Your task to perform on an android device: Search for "usb-b" on bestbuy, select the first entry, and add it to the cart. Image 0: 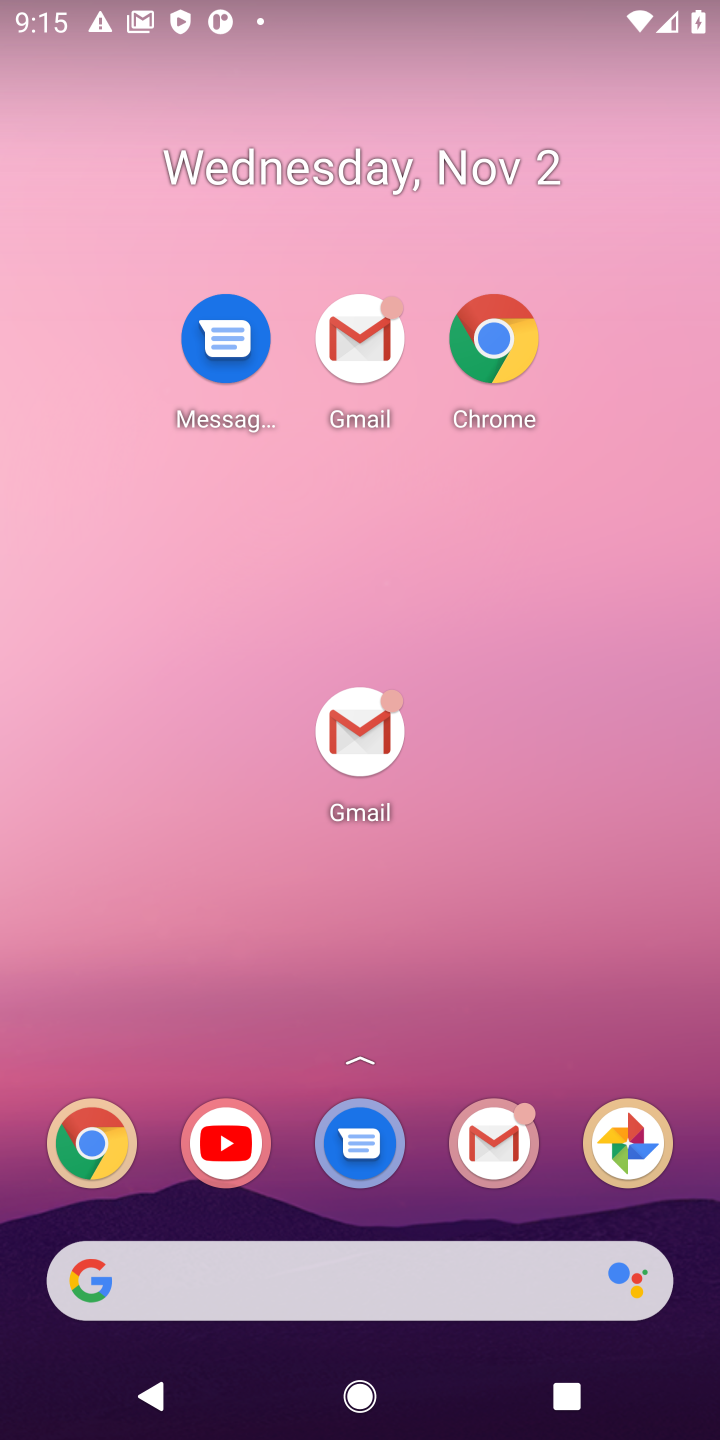
Step 0: click (423, 210)
Your task to perform on an android device: Search for "usb-b" on bestbuy, select the first entry, and add it to the cart. Image 1: 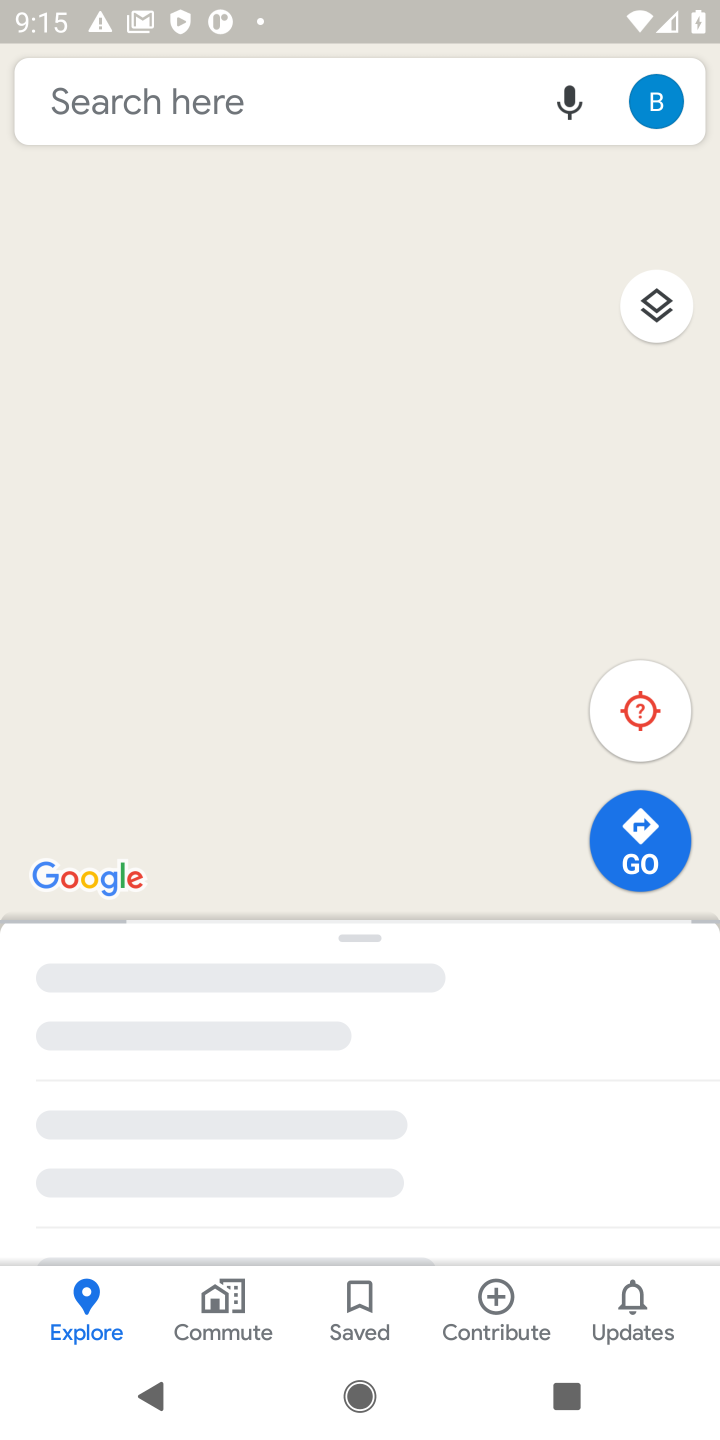
Step 1: press home button
Your task to perform on an android device: Search for "usb-b" on bestbuy, select the first entry, and add it to the cart. Image 2: 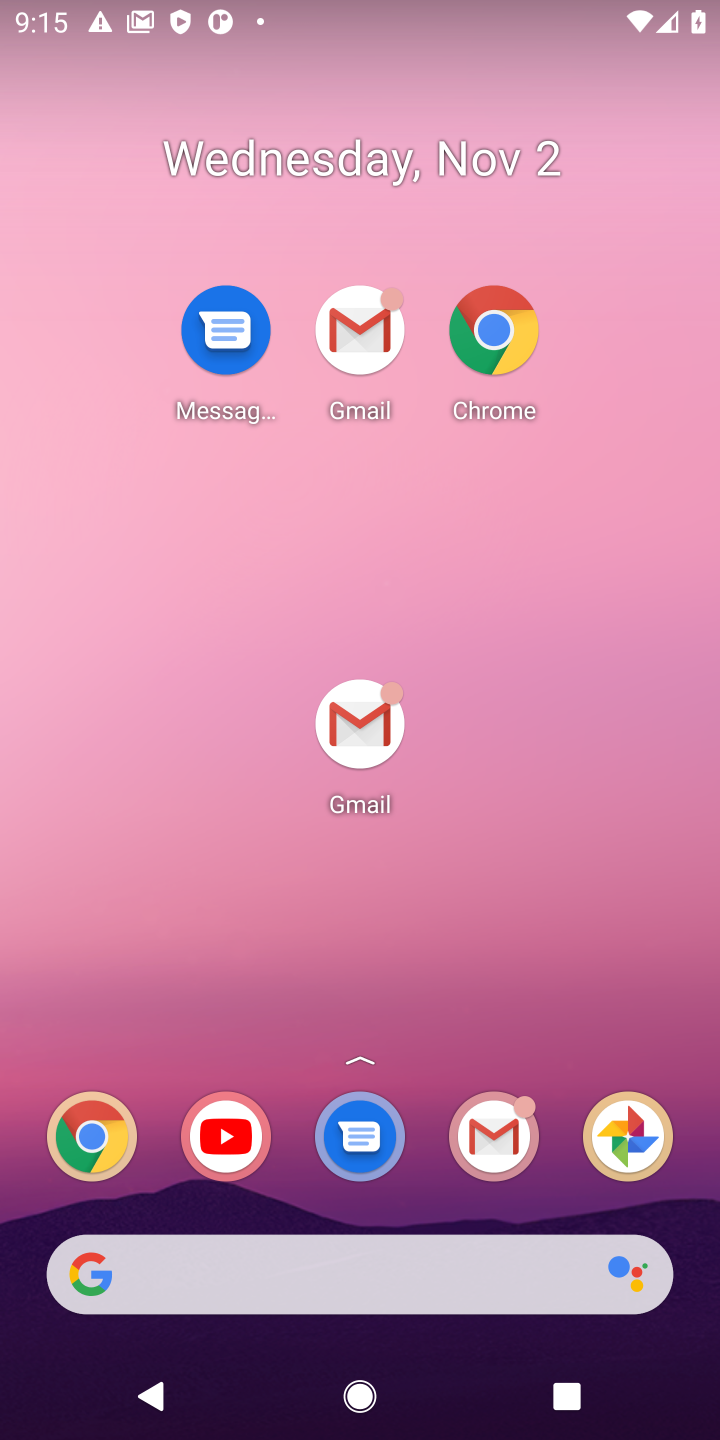
Step 2: press home button
Your task to perform on an android device: Search for "usb-b" on bestbuy, select the first entry, and add it to the cart. Image 3: 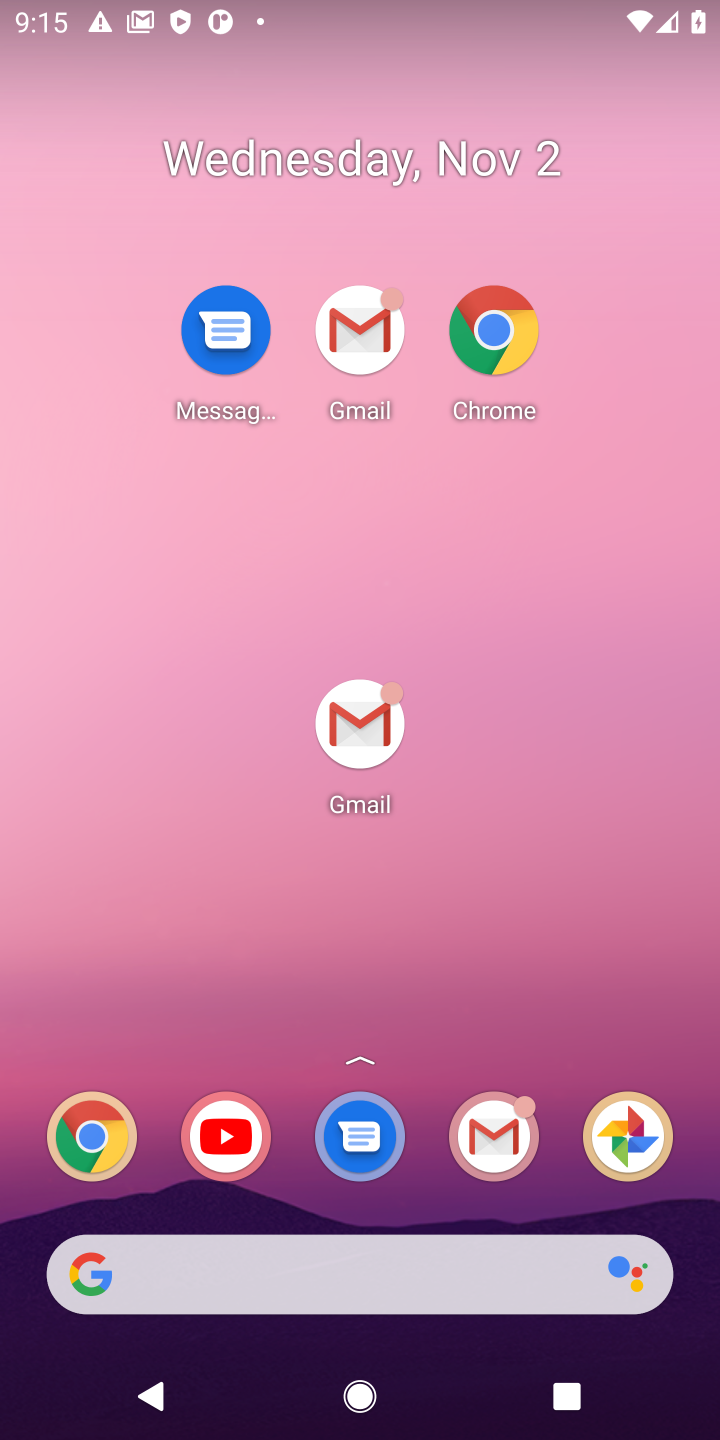
Step 3: drag from (307, 1034) to (284, 230)
Your task to perform on an android device: Search for "usb-b" on bestbuy, select the first entry, and add it to the cart. Image 4: 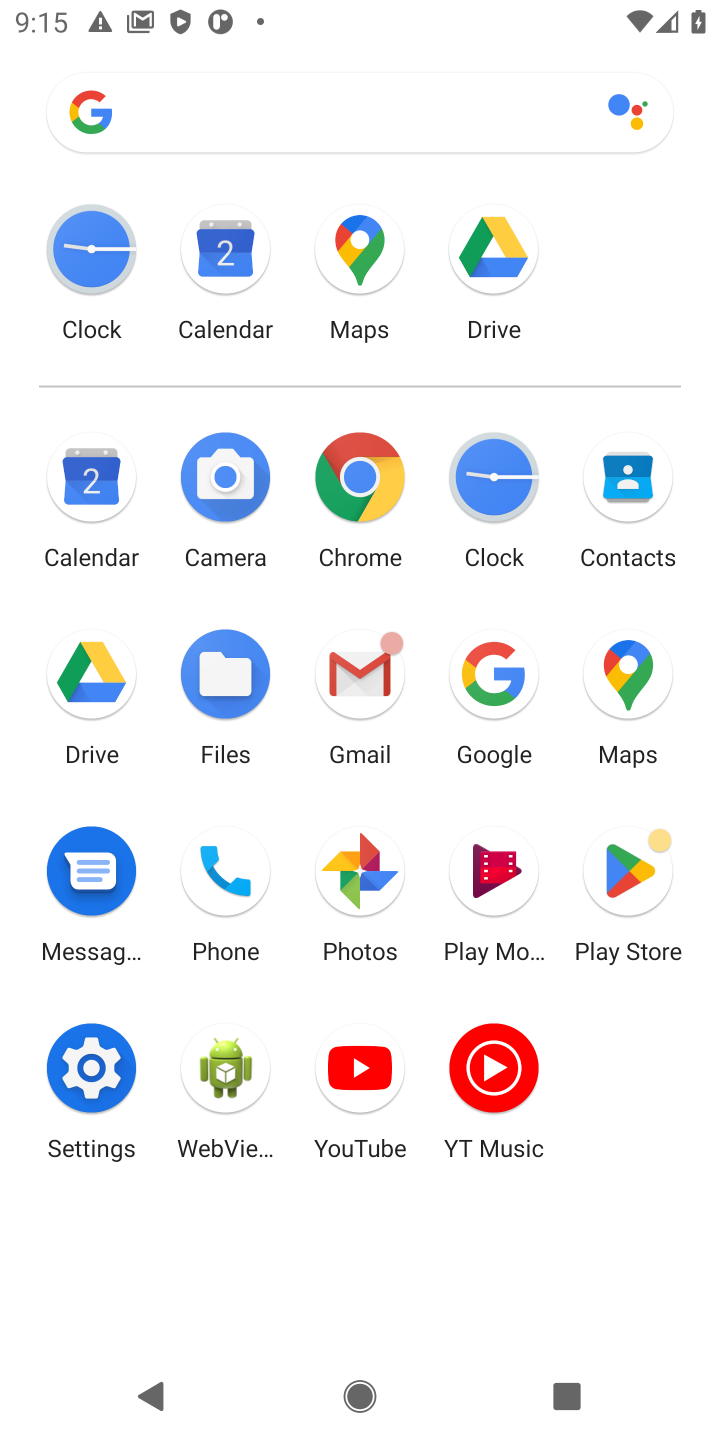
Step 4: click (497, 680)
Your task to perform on an android device: Search for "usb-b" on bestbuy, select the first entry, and add it to the cart. Image 5: 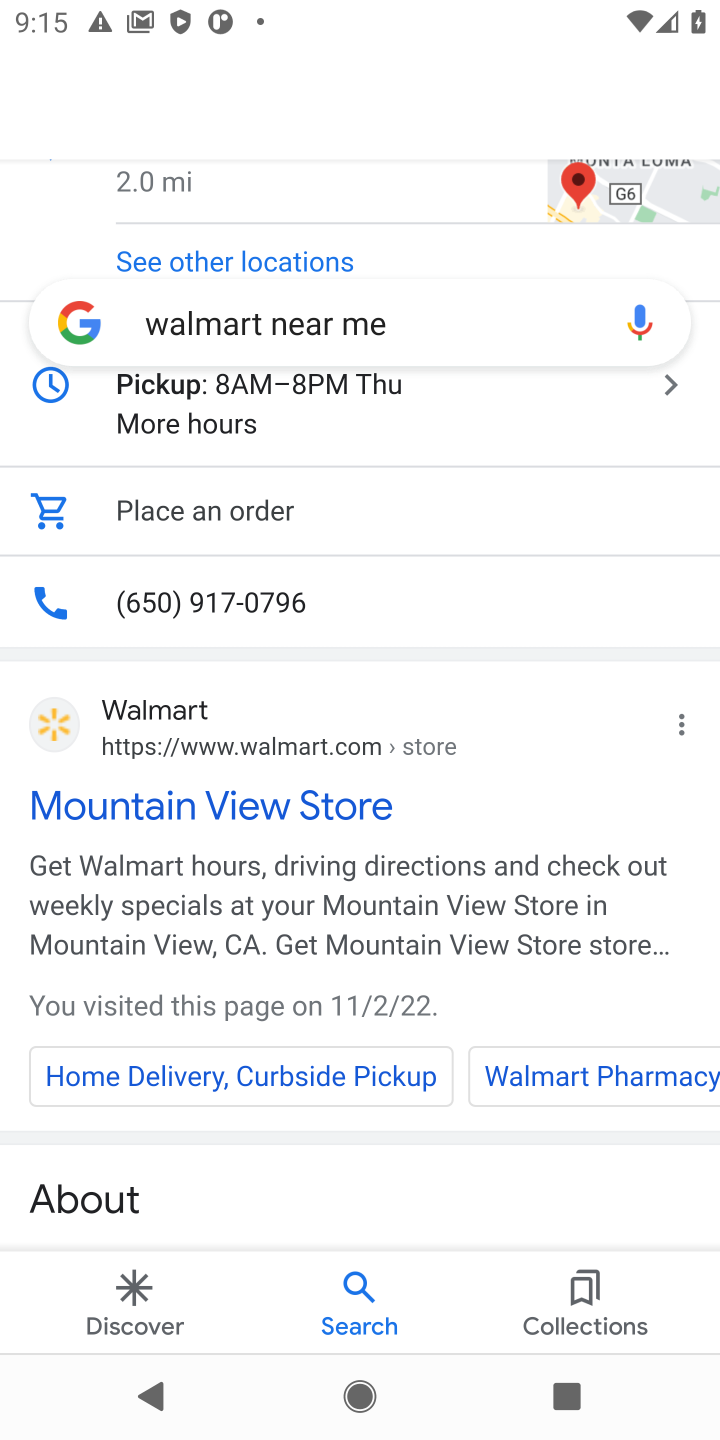
Step 5: click (388, 327)
Your task to perform on an android device: Search for "usb-b" on bestbuy, select the first entry, and add it to the cart. Image 6: 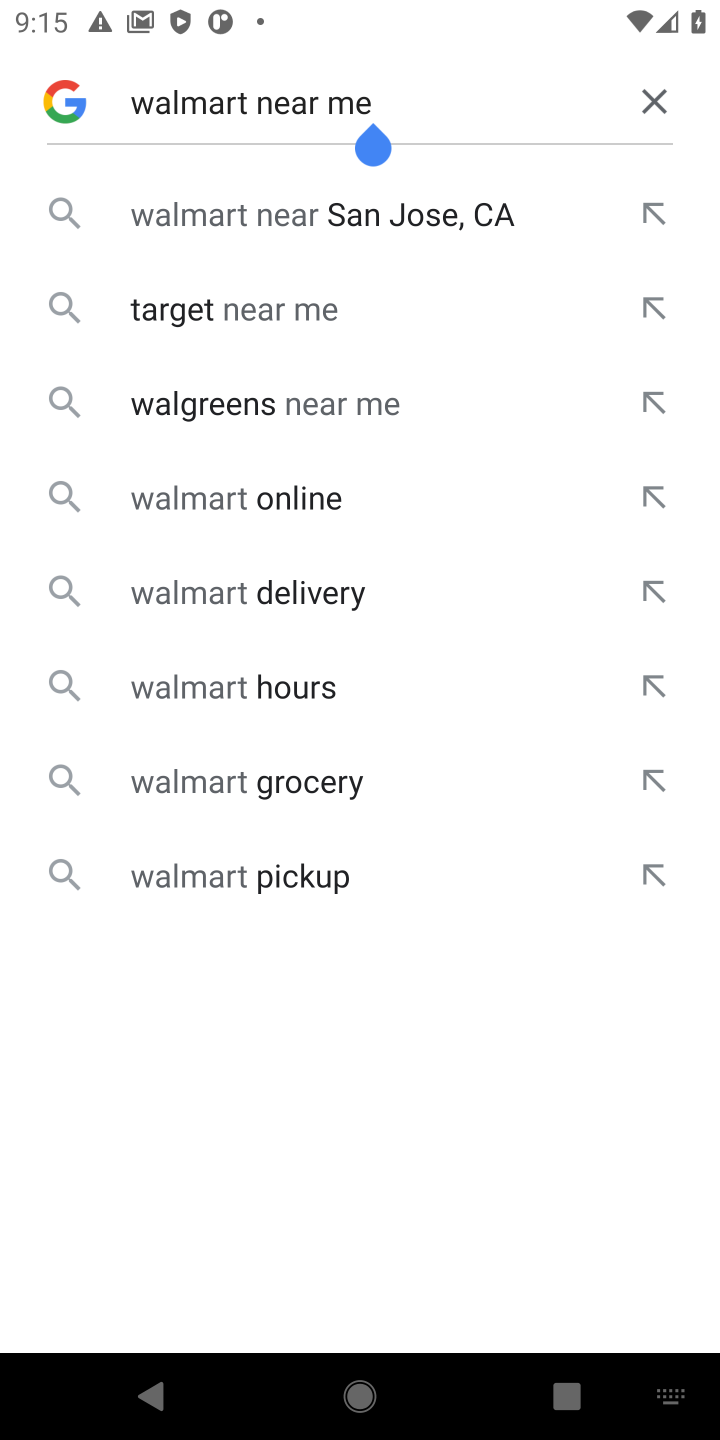
Step 6: click (661, 104)
Your task to perform on an android device: Search for "usb-b" on bestbuy, select the first entry, and add it to the cart. Image 7: 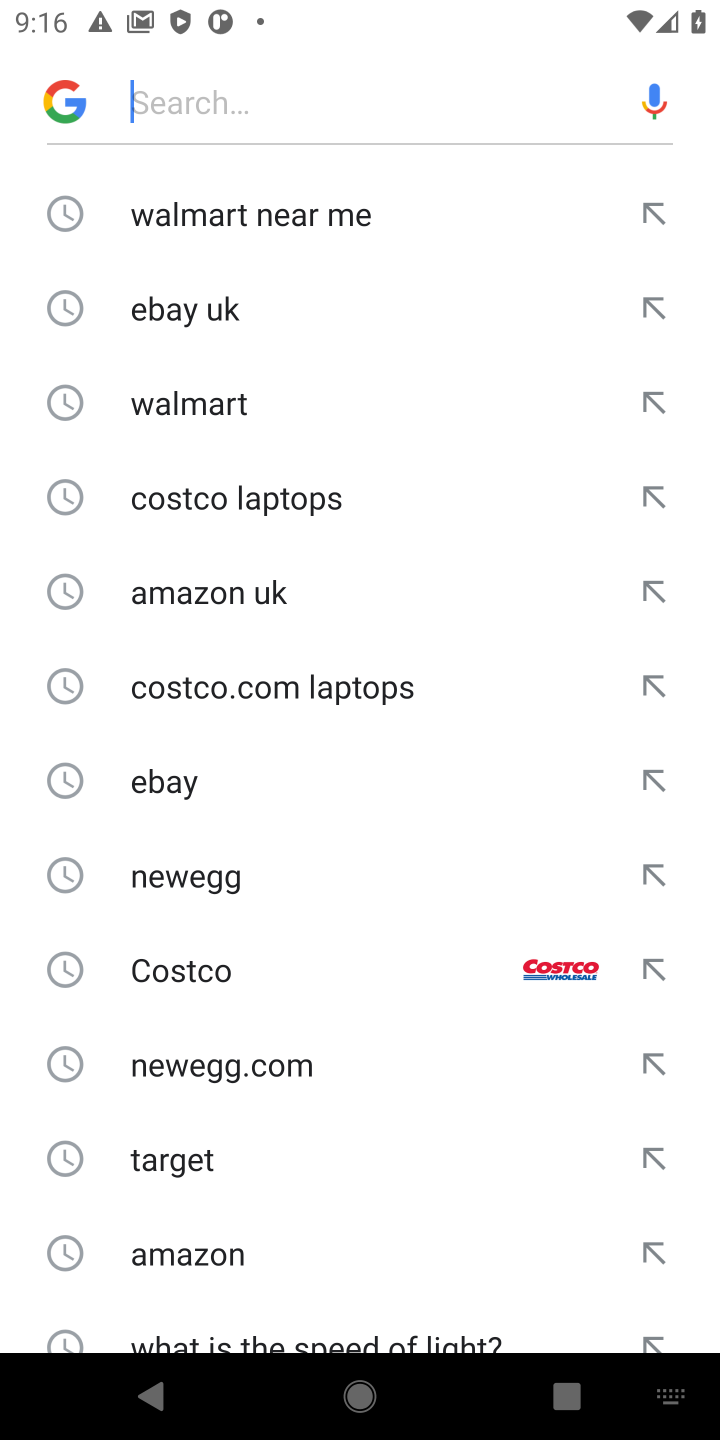
Step 7: click (375, 81)
Your task to perform on an android device: Search for "usb-b" on bestbuy, select the first entry, and add it to the cart. Image 8: 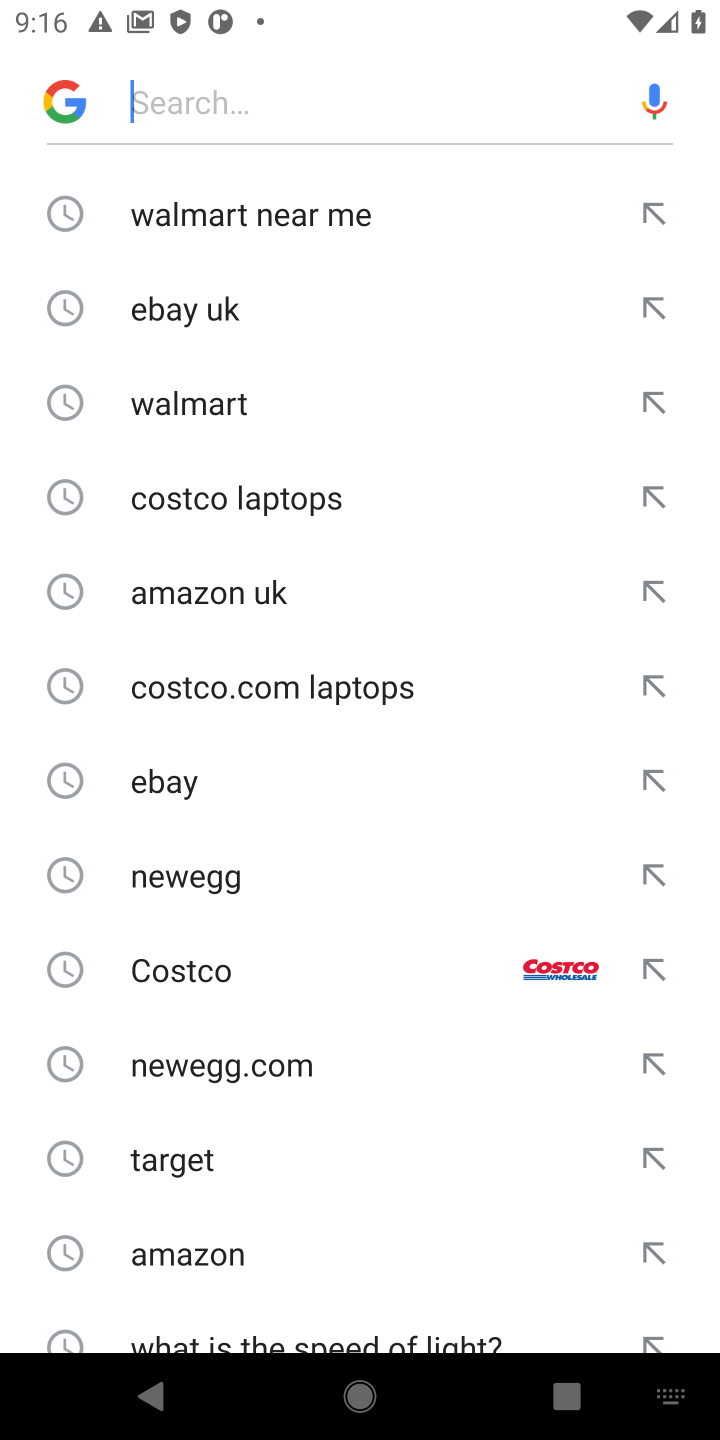
Step 8: type "bestbuy "
Your task to perform on an android device: Search for "usb-b" on bestbuy, select the first entry, and add it to the cart. Image 9: 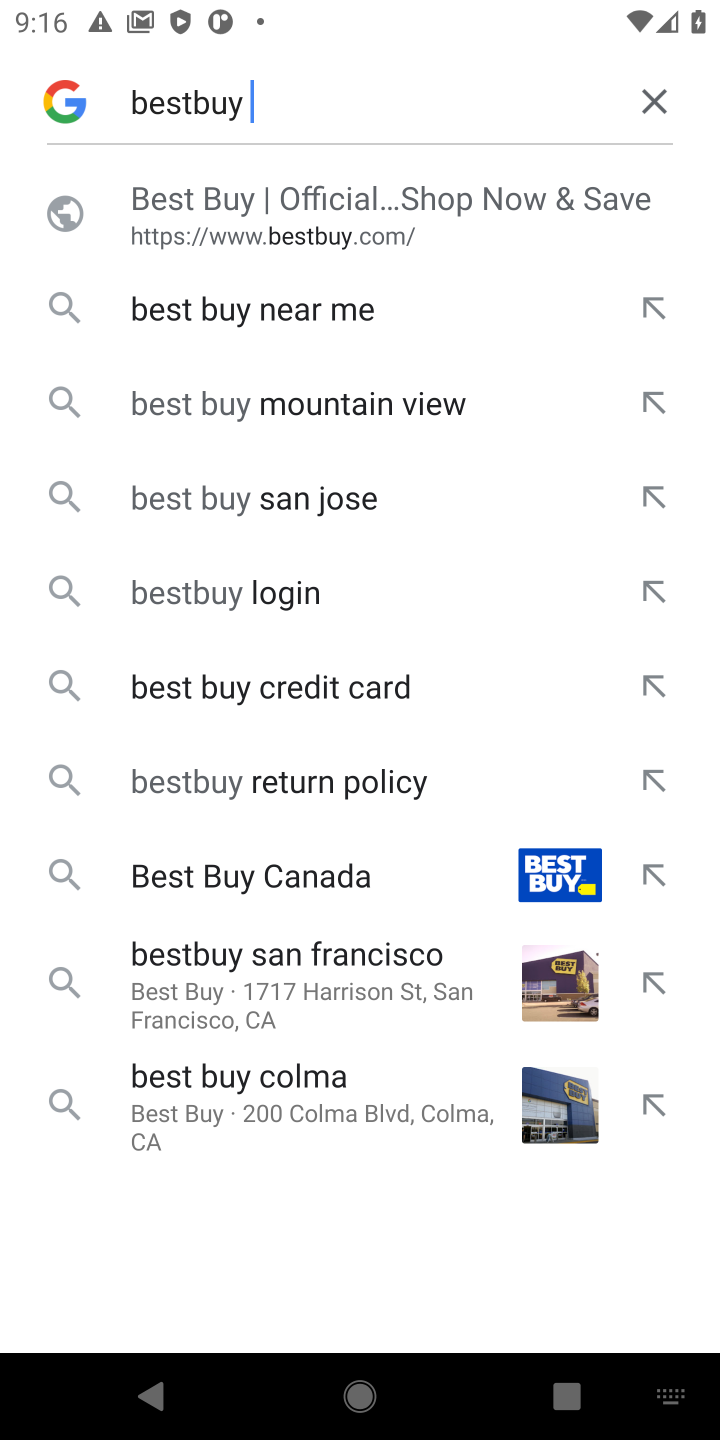
Step 9: click (351, 202)
Your task to perform on an android device: Search for "usb-b" on bestbuy, select the first entry, and add it to the cart. Image 10: 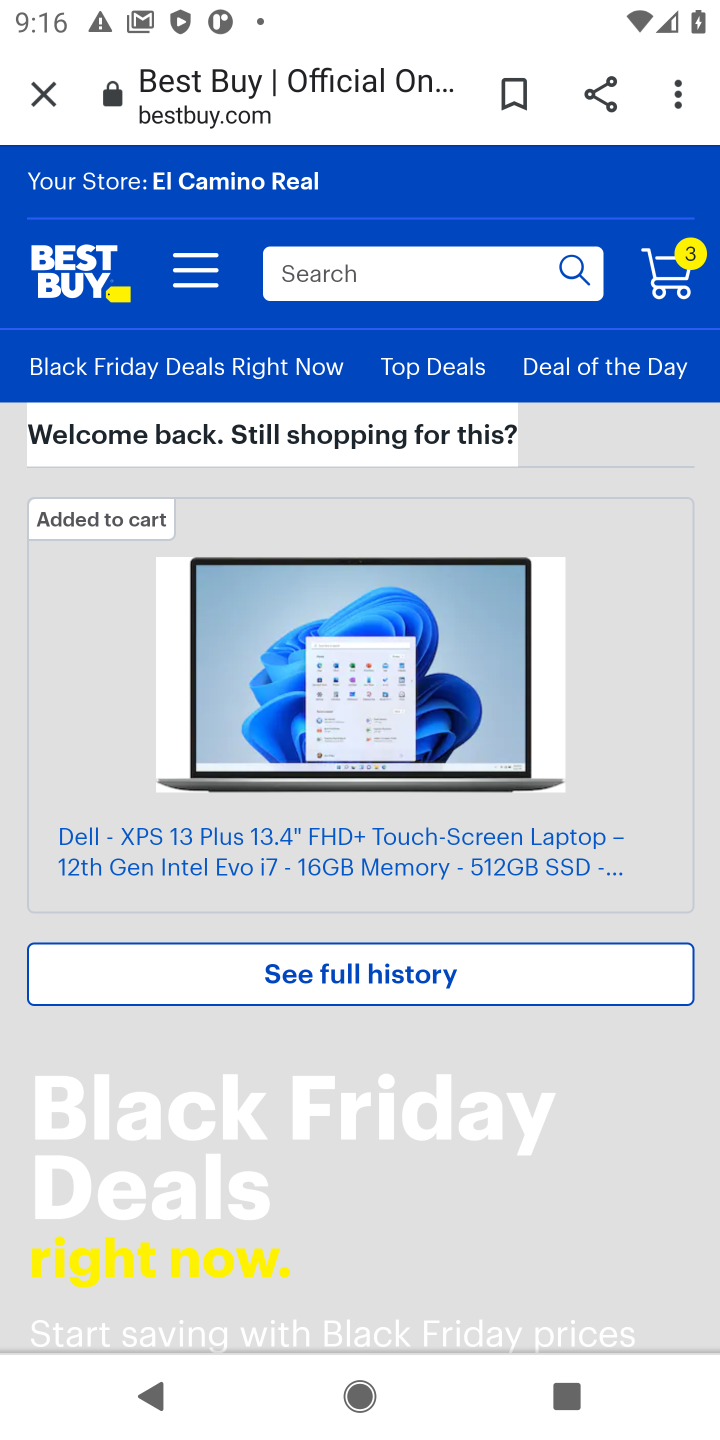
Step 10: click (391, 257)
Your task to perform on an android device: Search for "usb-b" on bestbuy, select the first entry, and add it to the cart. Image 11: 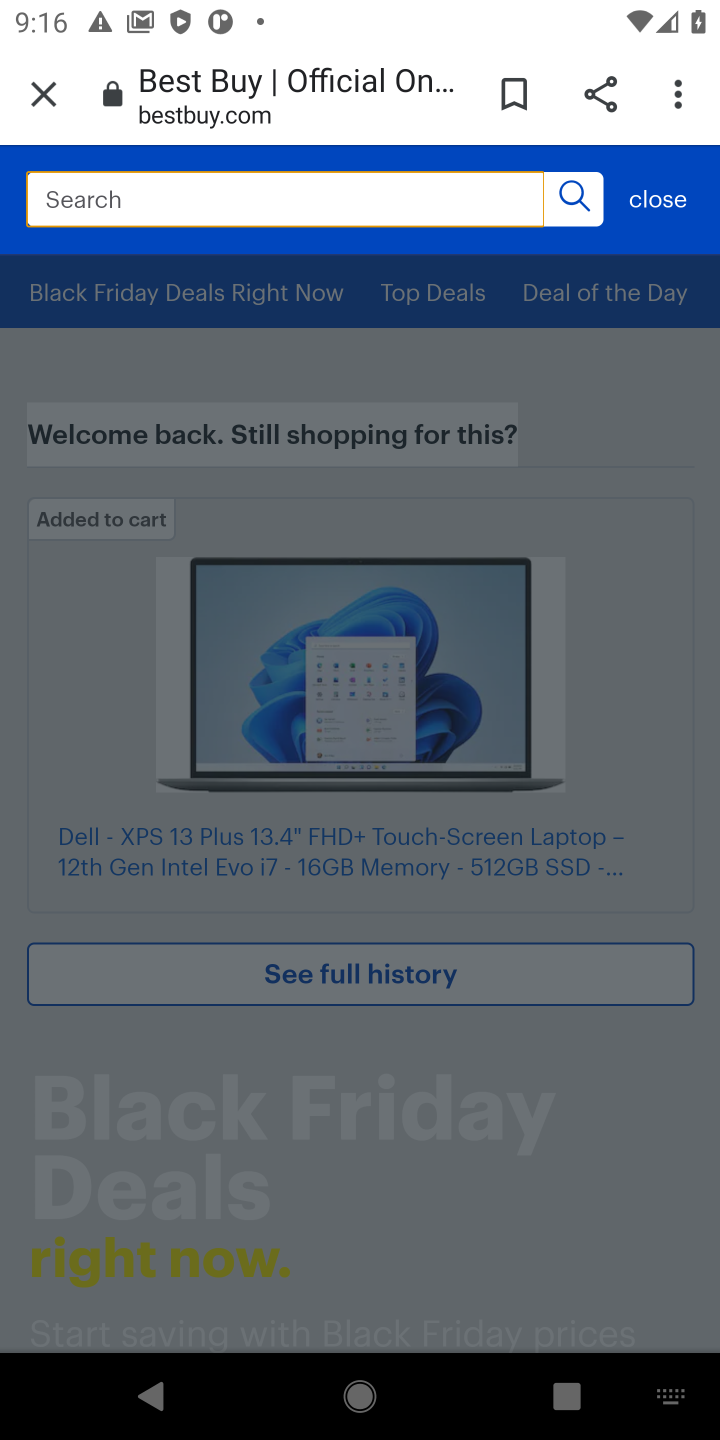
Step 11: click (254, 182)
Your task to perform on an android device: Search for "usb-b" on bestbuy, select the first entry, and add it to the cart. Image 12: 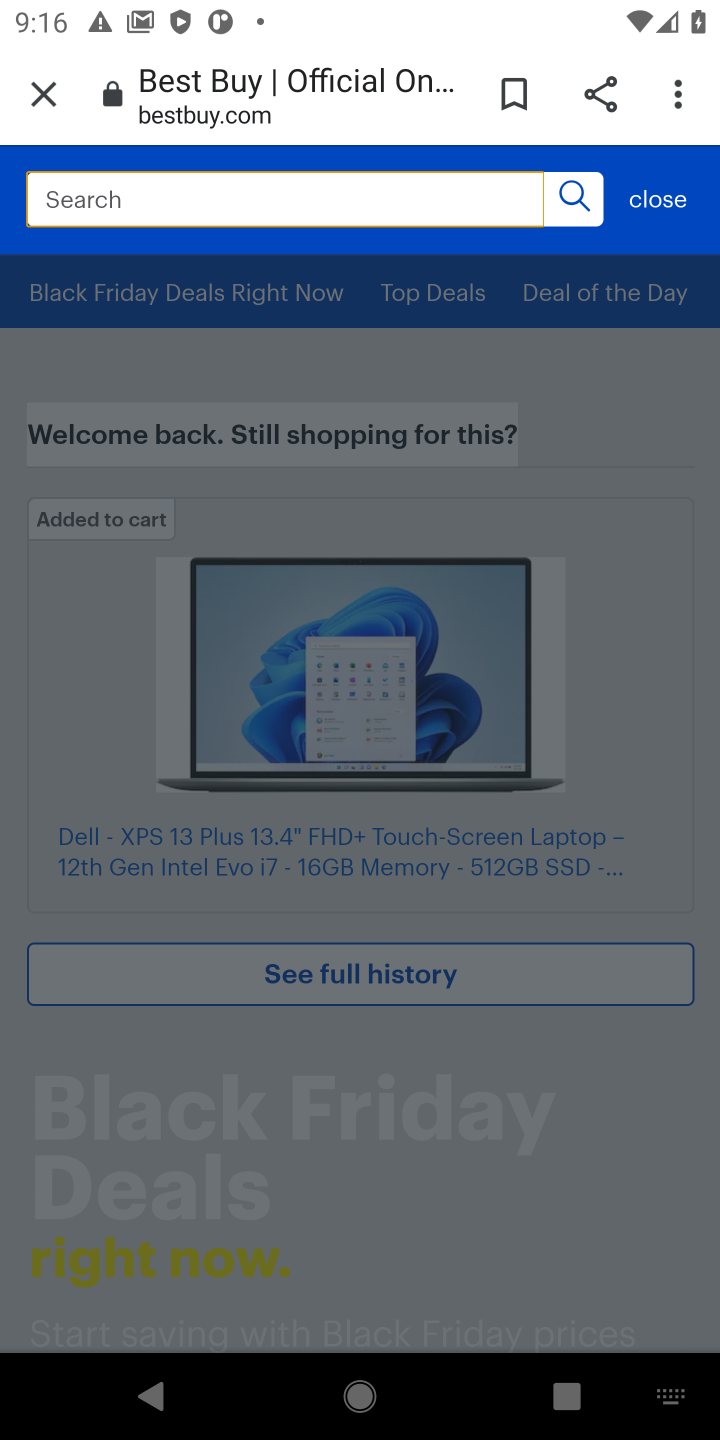
Step 12: type "usb-b "
Your task to perform on an android device: Search for "usb-b" on bestbuy, select the first entry, and add it to the cart. Image 13: 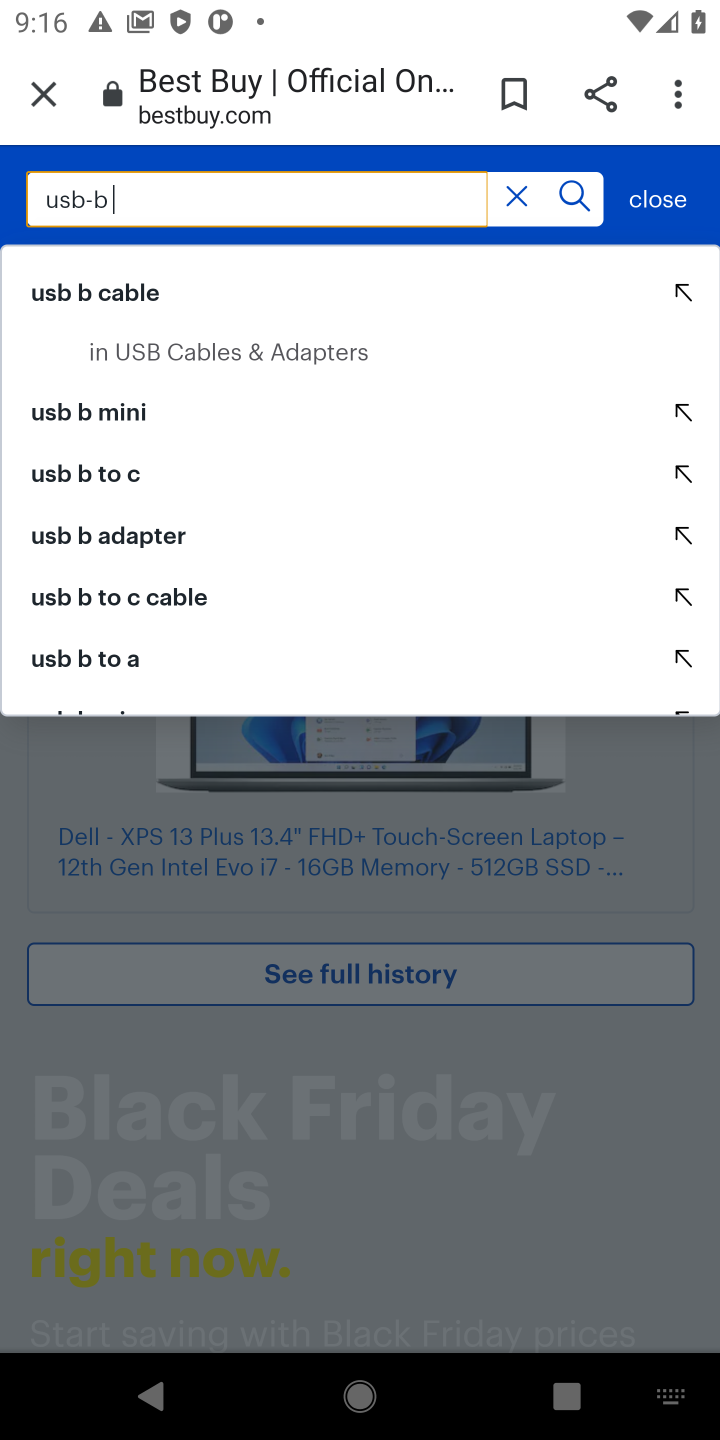
Step 13: click (140, 300)
Your task to perform on an android device: Search for "usb-b" on bestbuy, select the first entry, and add it to the cart. Image 14: 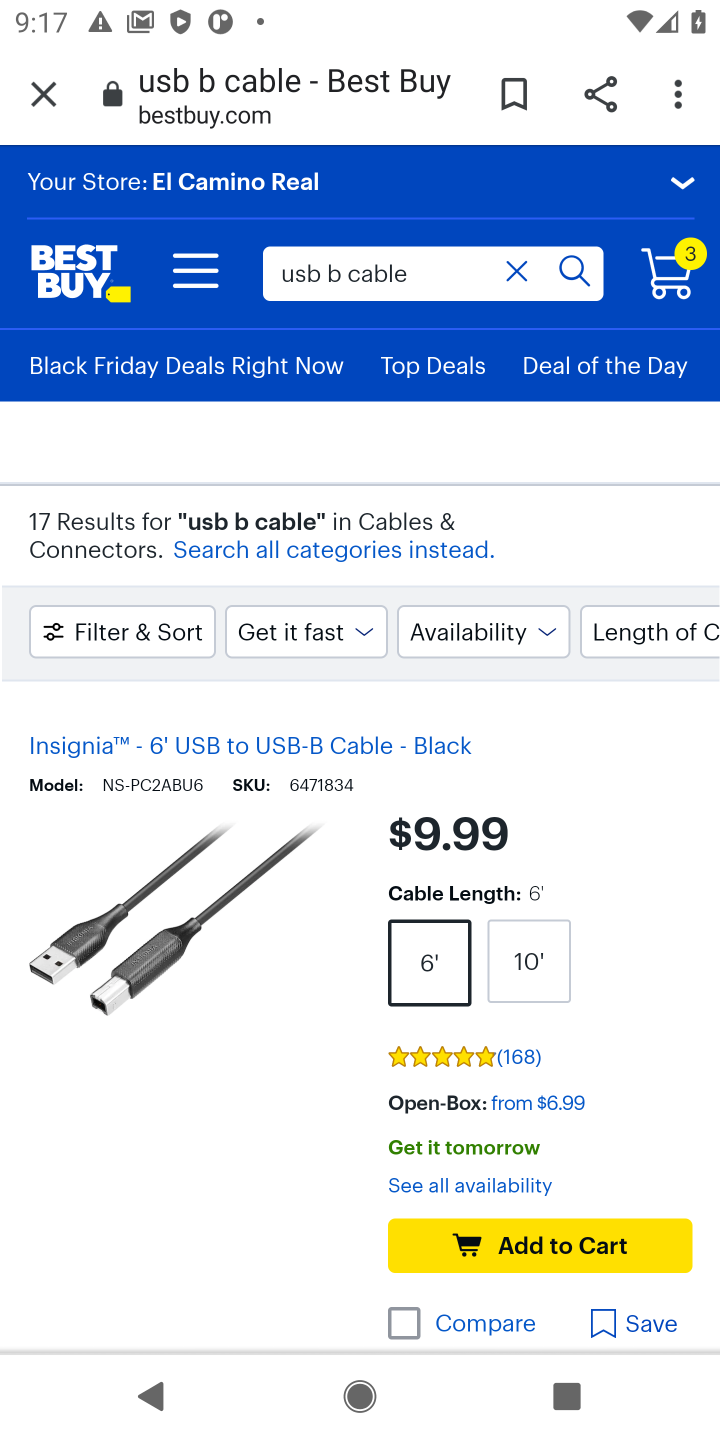
Step 14: click (513, 1243)
Your task to perform on an android device: Search for "usb-b" on bestbuy, select the first entry, and add it to the cart. Image 15: 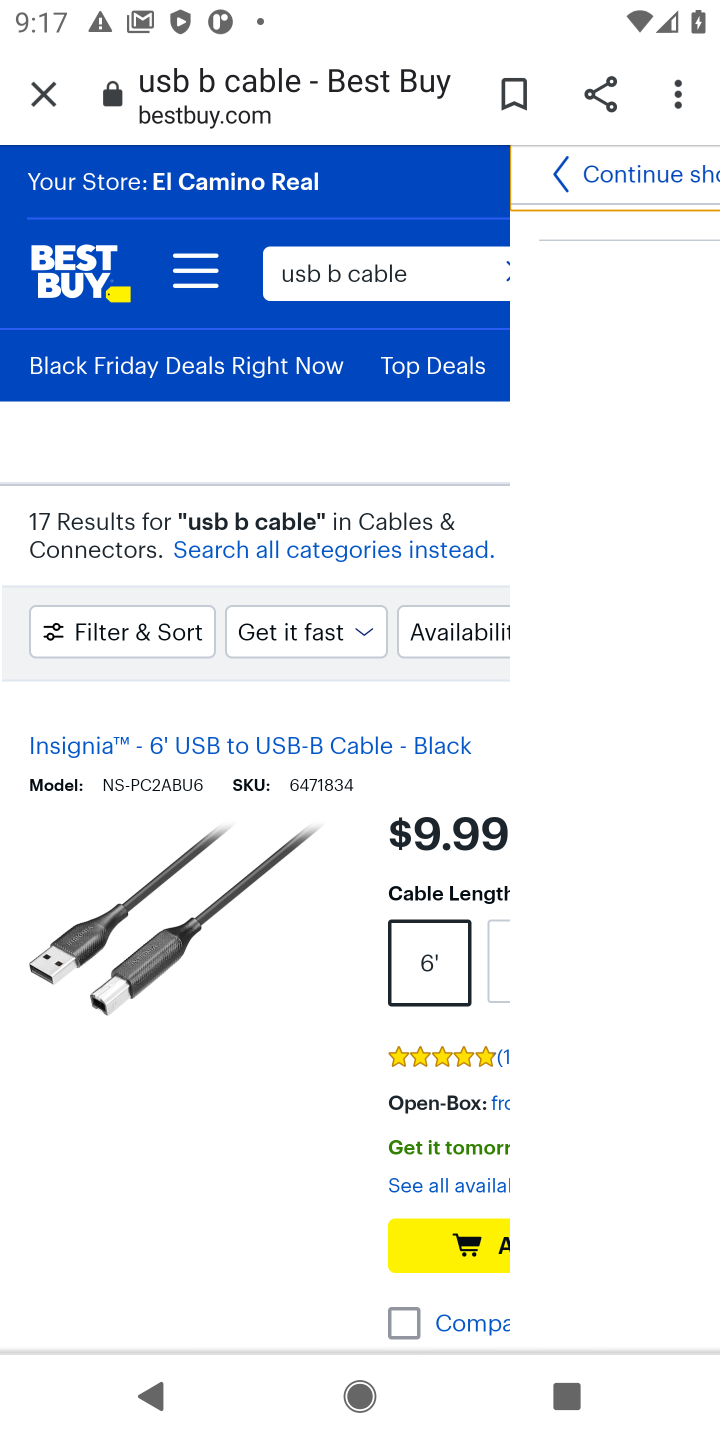
Step 15: click (486, 1230)
Your task to perform on an android device: Search for "usb-b" on bestbuy, select the first entry, and add it to the cart. Image 16: 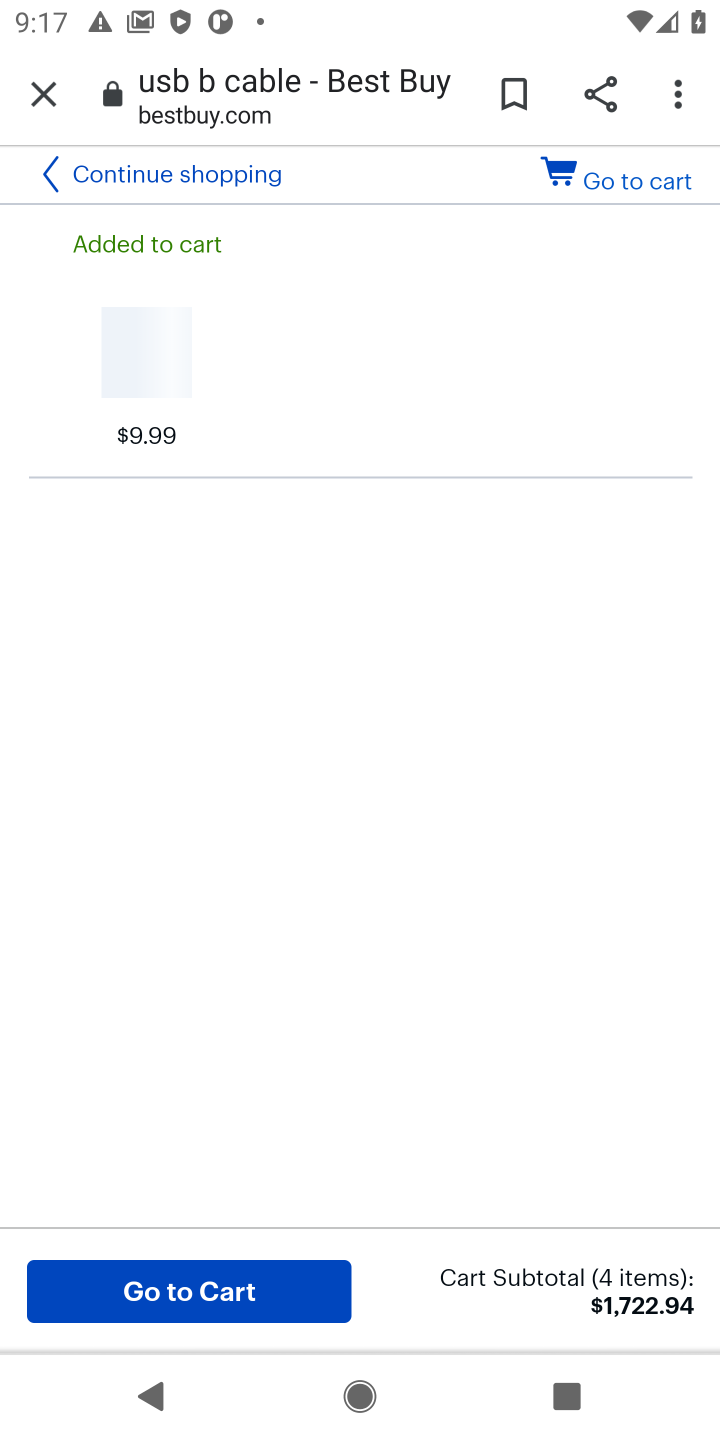
Step 16: task complete